Your task to perform on an android device: delete browsing data in the chrome app Image 0: 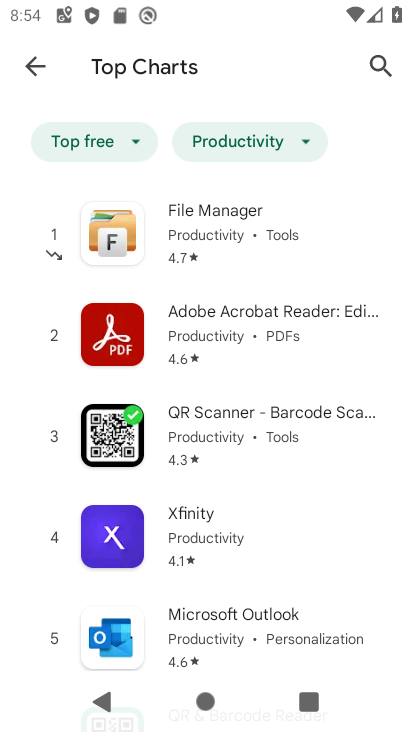
Step 0: press home button
Your task to perform on an android device: delete browsing data in the chrome app Image 1: 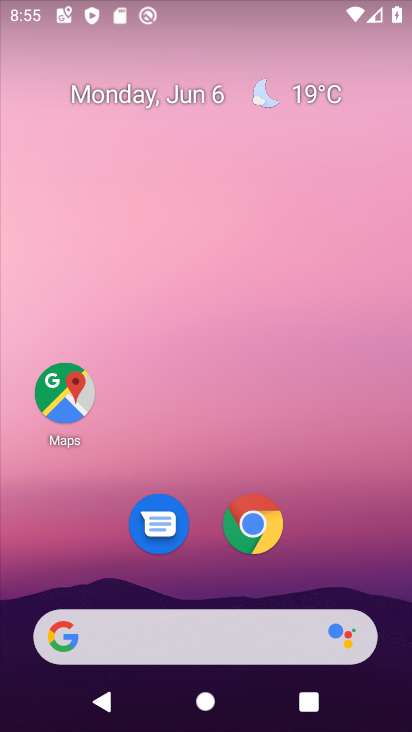
Step 1: click (267, 533)
Your task to perform on an android device: delete browsing data in the chrome app Image 2: 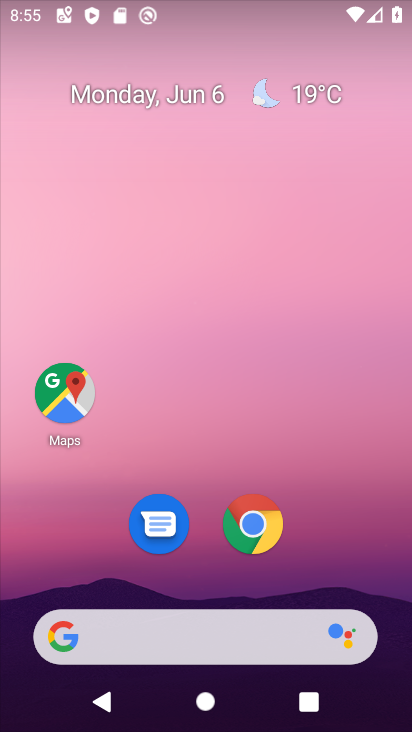
Step 2: click (267, 533)
Your task to perform on an android device: delete browsing data in the chrome app Image 3: 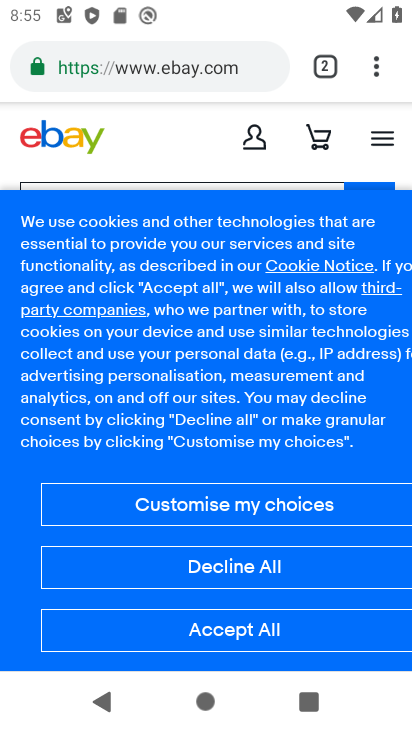
Step 3: click (379, 66)
Your task to perform on an android device: delete browsing data in the chrome app Image 4: 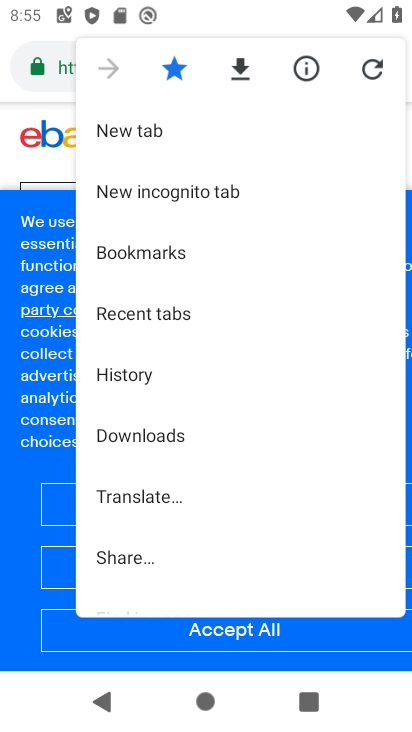
Step 4: click (181, 375)
Your task to perform on an android device: delete browsing data in the chrome app Image 5: 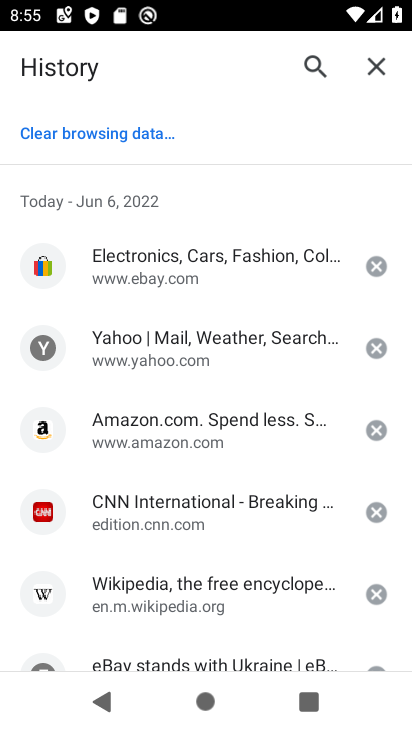
Step 5: click (156, 137)
Your task to perform on an android device: delete browsing data in the chrome app Image 6: 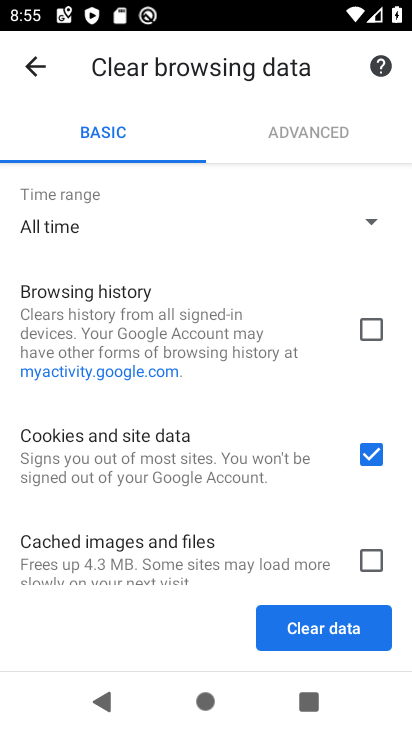
Step 6: click (376, 562)
Your task to perform on an android device: delete browsing data in the chrome app Image 7: 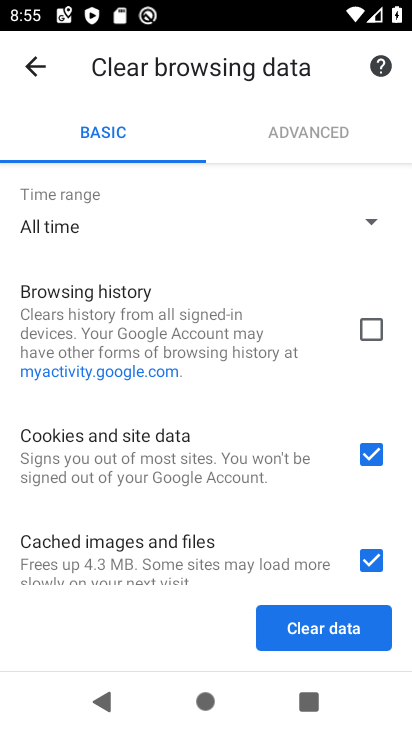
Step 7: click (372, 326)
Your task to perform on an android device: delete browsing data in the chrome app Image 8: 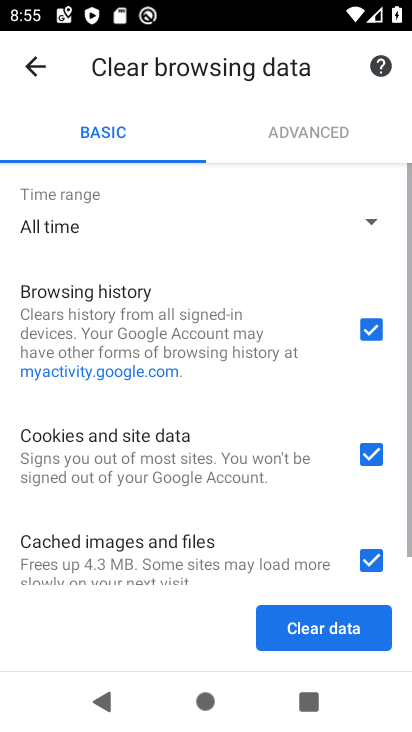
Step 8: click (372, 326)
Your task to perform on an android device: delete browsing data in the chrome app Image 9: 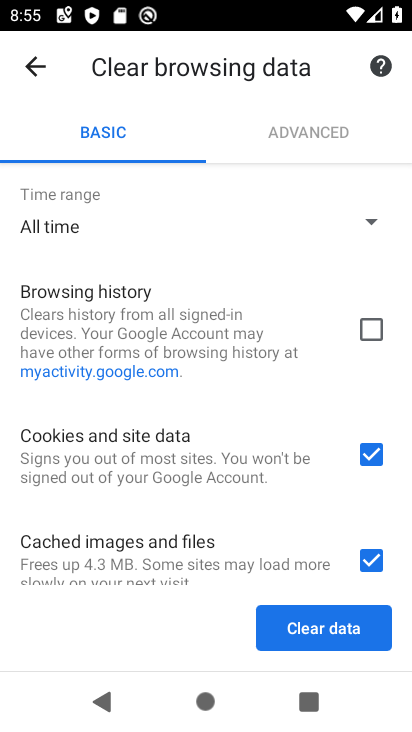
Step 9: click (372, 326)
Your task to perform on an android device: delete browsing data in the chrome app Image 10: 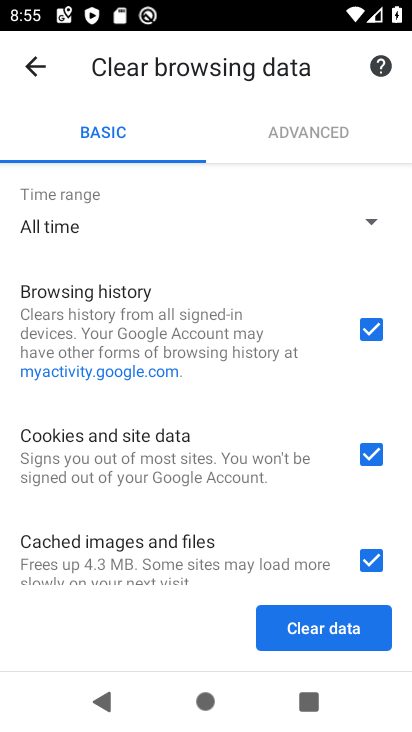
Step 10: click (341, 631)
Your task to perform on an android device: delete browsing data in the chrome app Image 11: 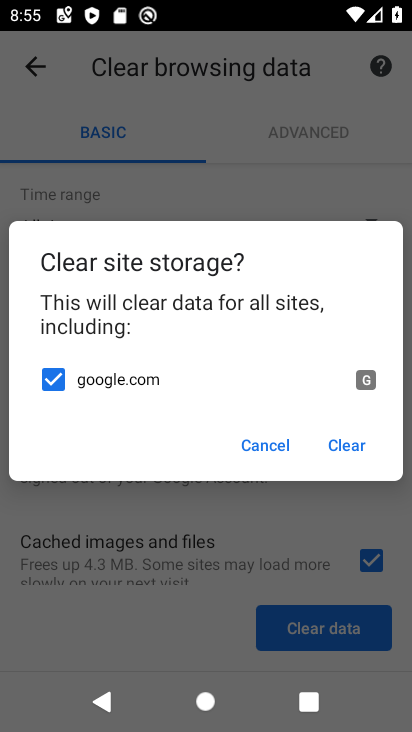
Step 11: click (344, 440)
Your task to perform on an android device: delete browsing data in the chrome app Image 12: 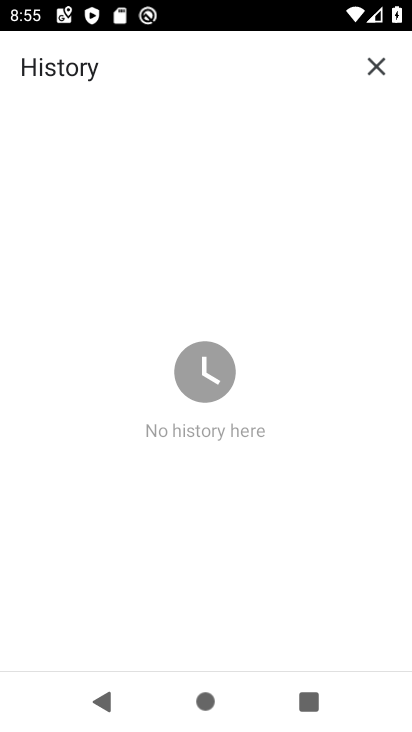
Step 12: task complete